Your task to perform on an android device: toggle priority inbox in the gmail app Image 0: 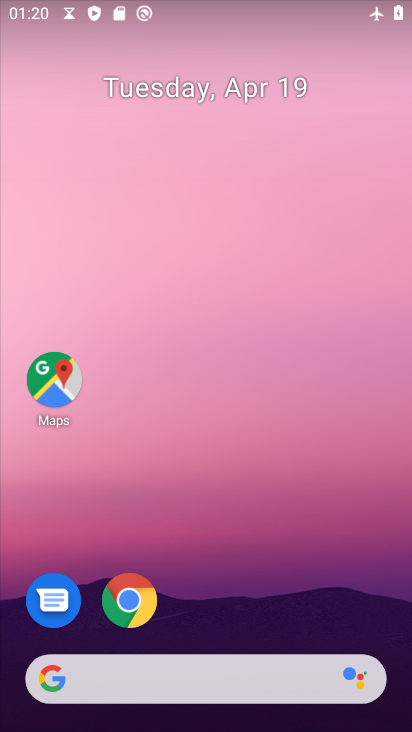
Step 0: drag from (226, 642) to (207, 74)
Your task to perform on an android device: toggle priority inbox in the gmail app Image 1: 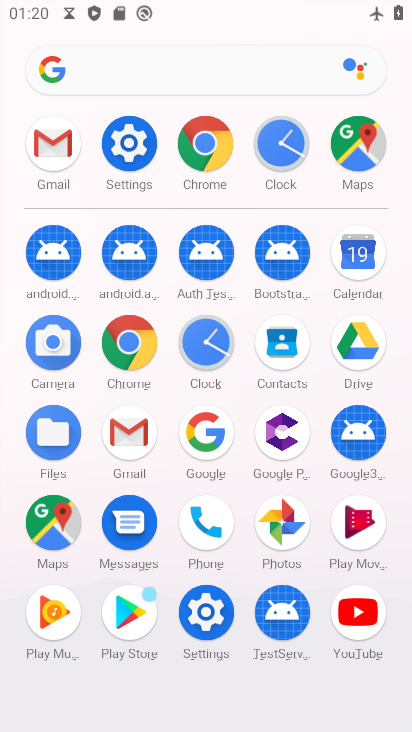
Step 1: click (137, 457)
Your task to perform on an android device: toggle priority inbox in the gmail app Image 2: 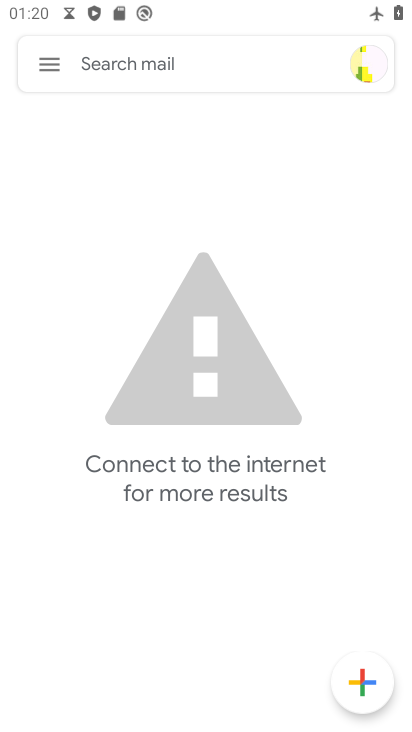
Step 2: click (51, 72)
Your task to perform on an android device: toggle priority inbox in the gmail app Image 3: 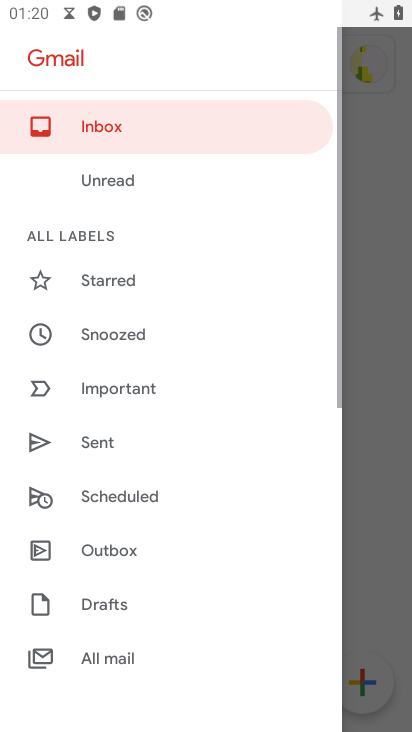
Step 3: drag from (127, 560) to (133, 201)
Your task to perform on an android device: toggle priority inbox in the gmail app Image 4: 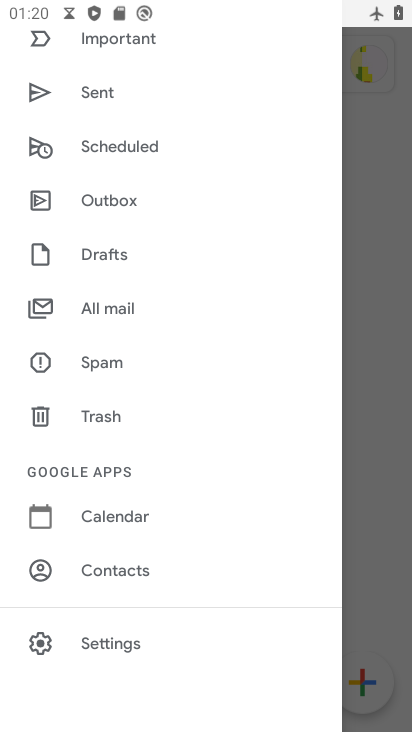
Step 4: click (136, 640)
Your task to perform on an android device: toggle priority inbox in the gmail app Image 5: 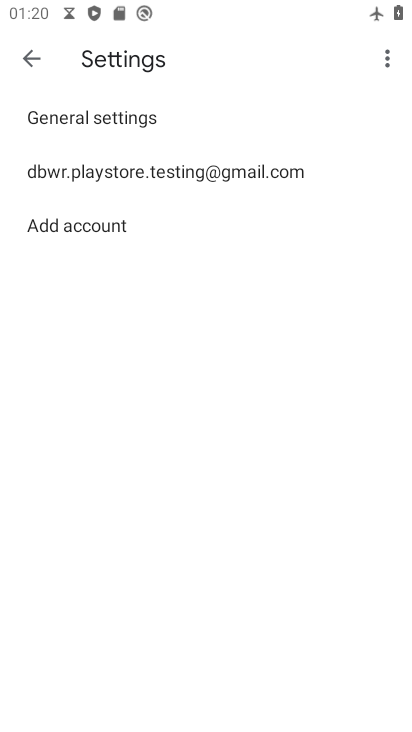
Step 5: click (146, 180)
Your task to perform on an android device: toggle priority inbox in the gmail app Image 6: 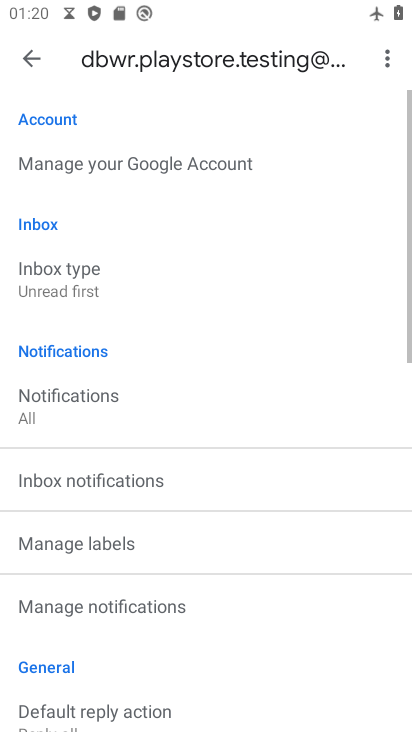
Step 6: drag from (196, 624) to (194, 129)
Your task to perform on an android device: toggle priority inbox in the gmail app Image 7: 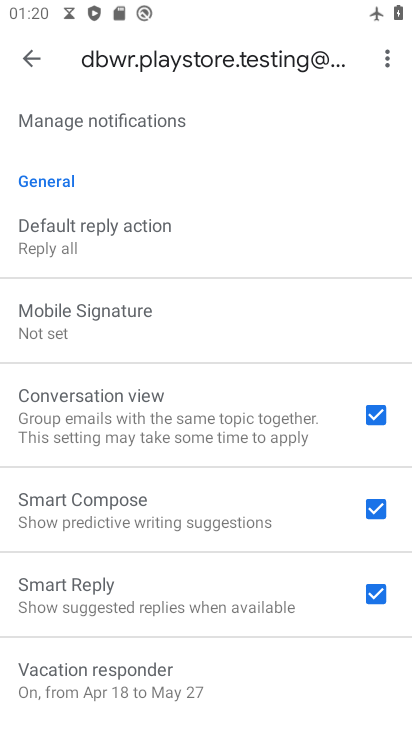
Step 7: drag from (185, 633) to (189, 214)
Your task to perform on an android device: toggle priority inbox in the gmail app Image 8: 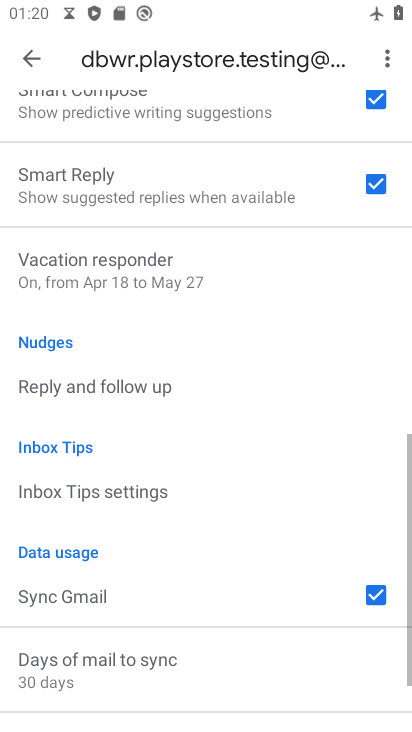
Step 8: drag from (190, 234) to (190, 627)
Your task to perform on an android device: toggle priority inbox in the gmail app Image 9: 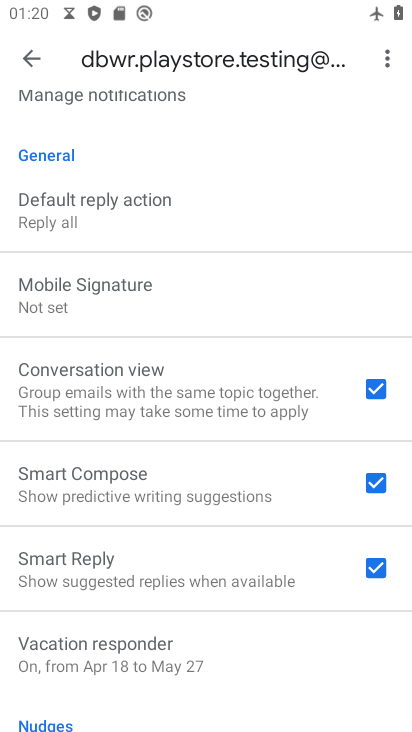
Step 9: drag from (196, 144) to (175, 602)
Your task to perform on an android device: toggle priority inbox in the gmail app Image 10: 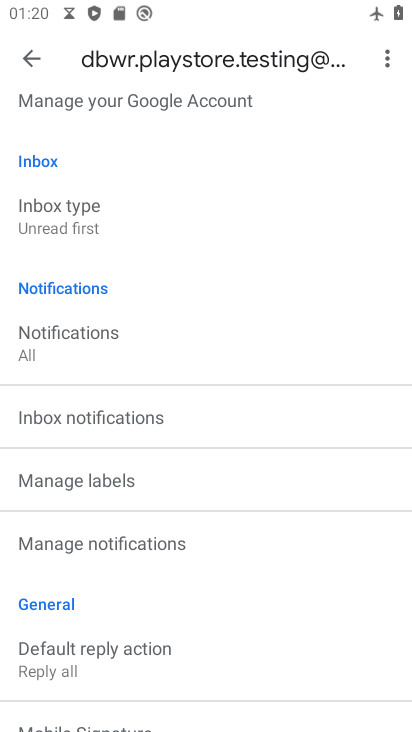
Step 10: click (95, 203)
Your task to perform on an android device: toggle priority inbox in the gmail app Image 11: 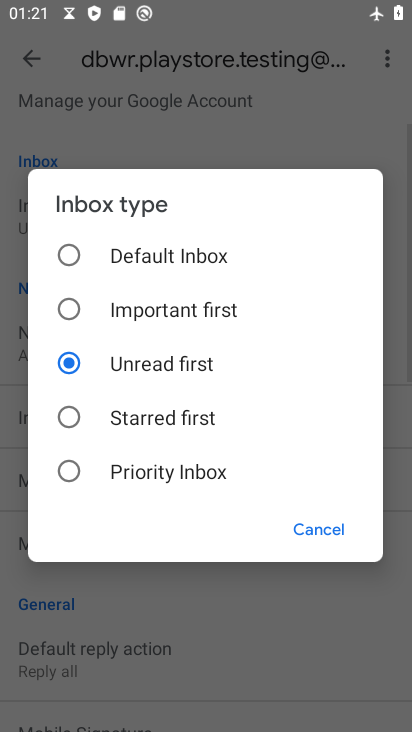
Step 11: click (142, 467)
Your task to perform on an android device: toggle priority inbox in the gmail app Image 12: 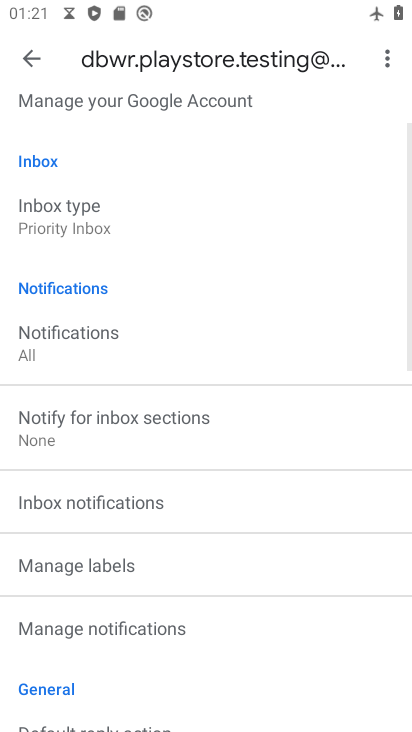
Step 12: task complete